Your task to perform on an android device: open app "Microsoft Outlook" (install if not already installed) Image 0: 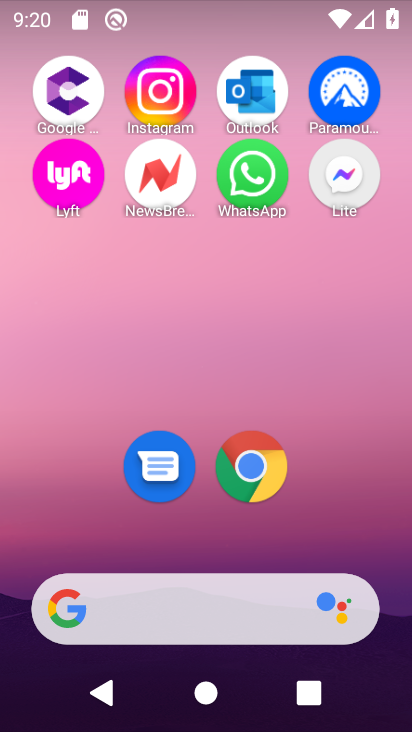
Step 0: drag from (247, 676) to (268, 130)
Your task to perform on an android device: open app "Microsoft Outlook" (install if not already installed) Image 1: 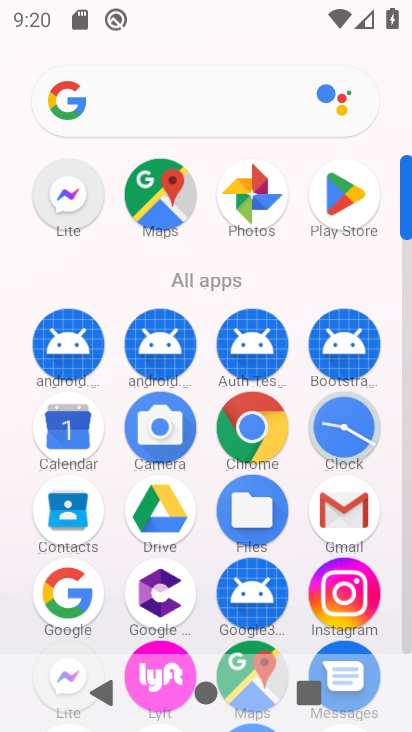
Step 1: click (337, 199)
Your task to perform on an android device: open app "Microsoft Outlook" (install if not already installed) Image 2: 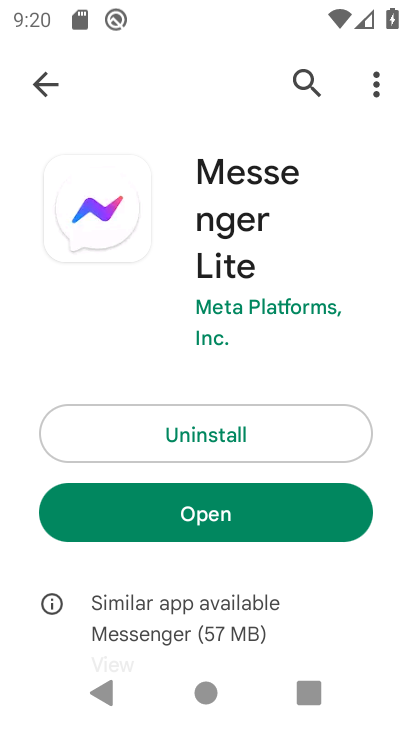
Step 2: click (300, 77)
Your task to perform on an android device: open app "Microsoft Outlook" (install if not already installed) Image 3: 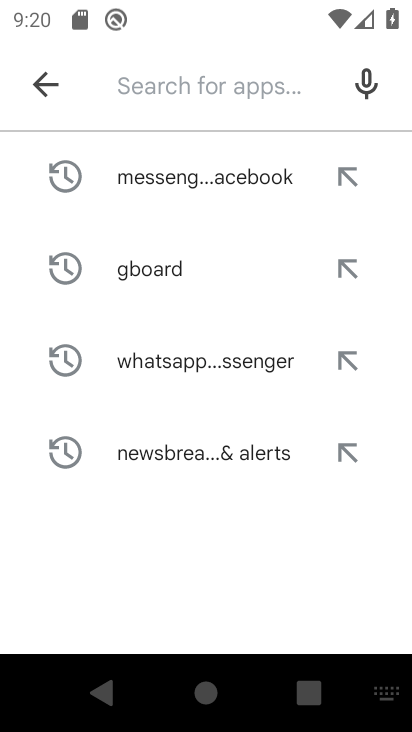
Step 3: type "Microsoft Outlook"
Your task to perform on an android device: open app "Microsoft Outlook" (install if not already installed) Image 4: 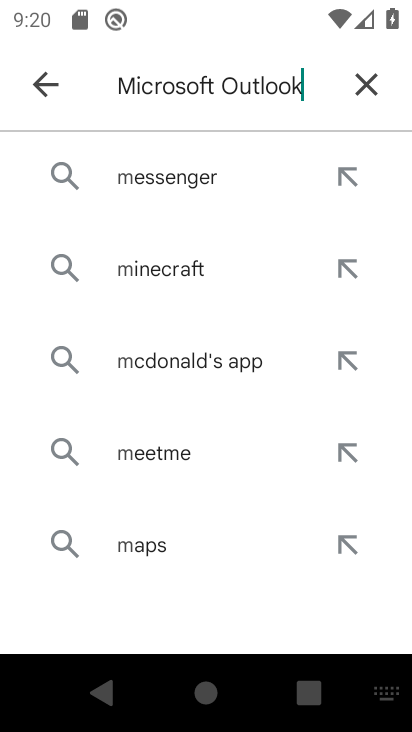
Step 4: type ""
Your task to perform on an android device: open app "Microsoft Outlook" (install if not already installed) Image 5: 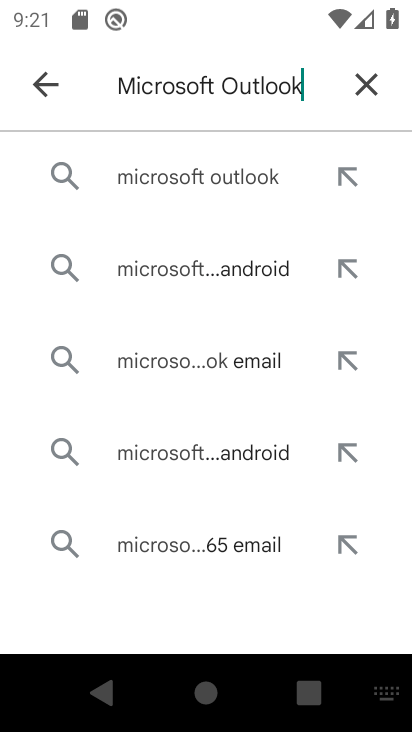
Step 5: click (156, 172)
Your task to perform on an android device: open app "Microsoft Outlook" (install if not already installed) Image 6: 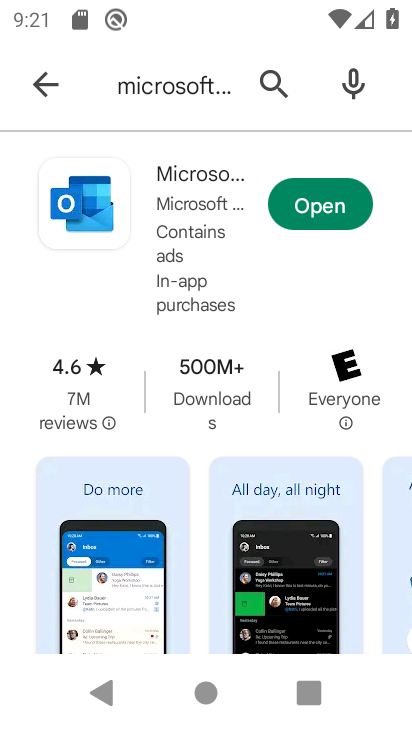
Step 6: click (310, 210)
Your task to perform on an android device: open app "Microsoft Outlook" (install if not already installed) Image 7: 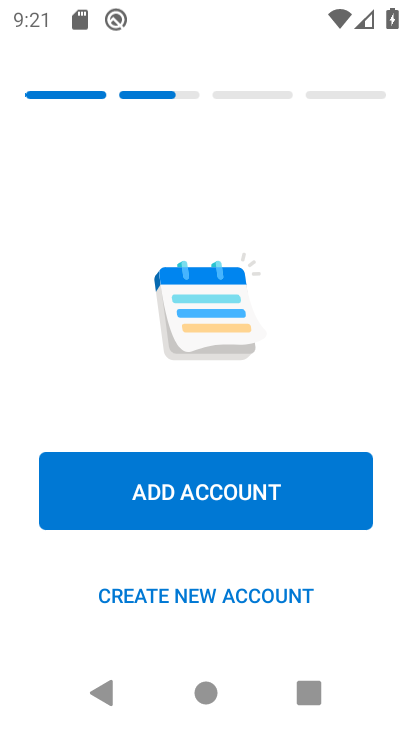
Step 7: task complete